Your task to perform on an android device: Add usb-a to usb-b to the cart on costco.com, then select checkout. Image 0: 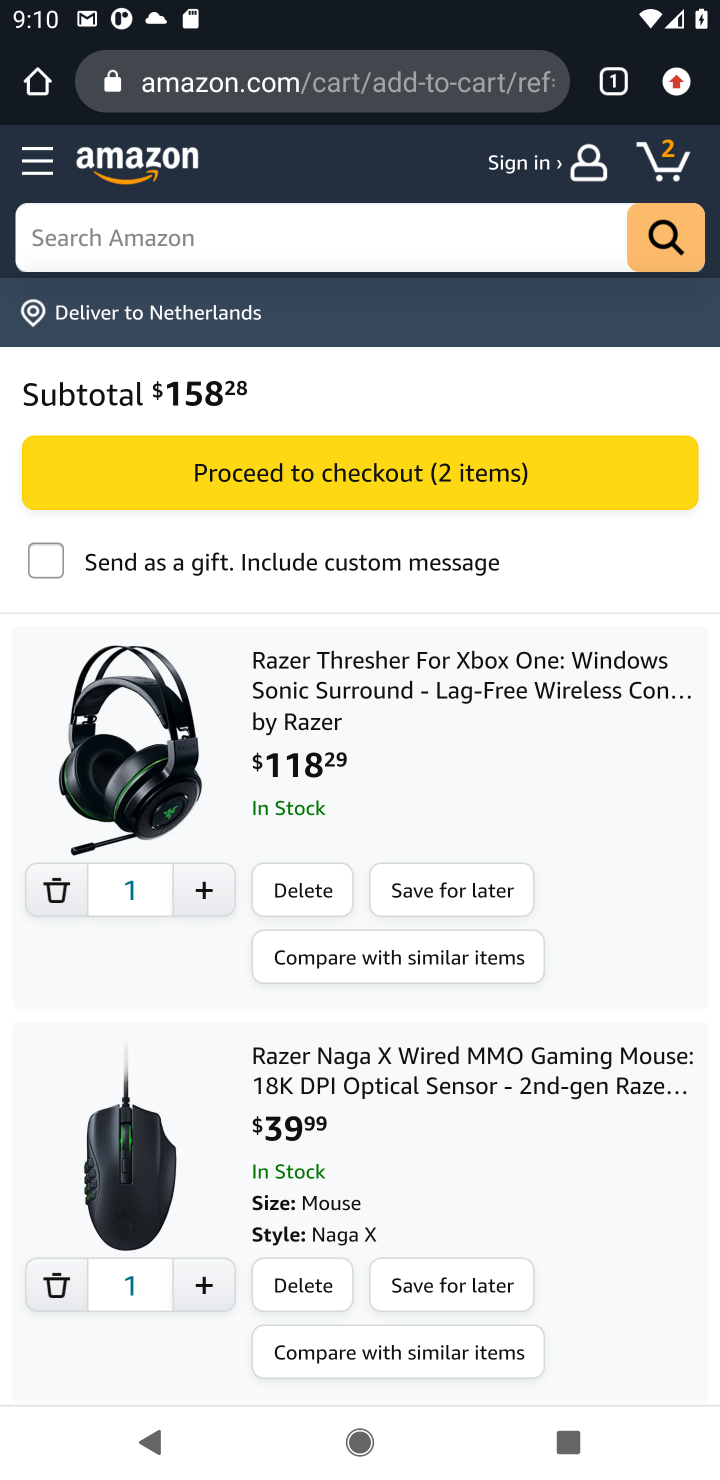
Step 0: click (364, 60)
Your task to perform on an android device: Add usb-a to usb-b to the cart on costco.com, then select checkout. Image 1: 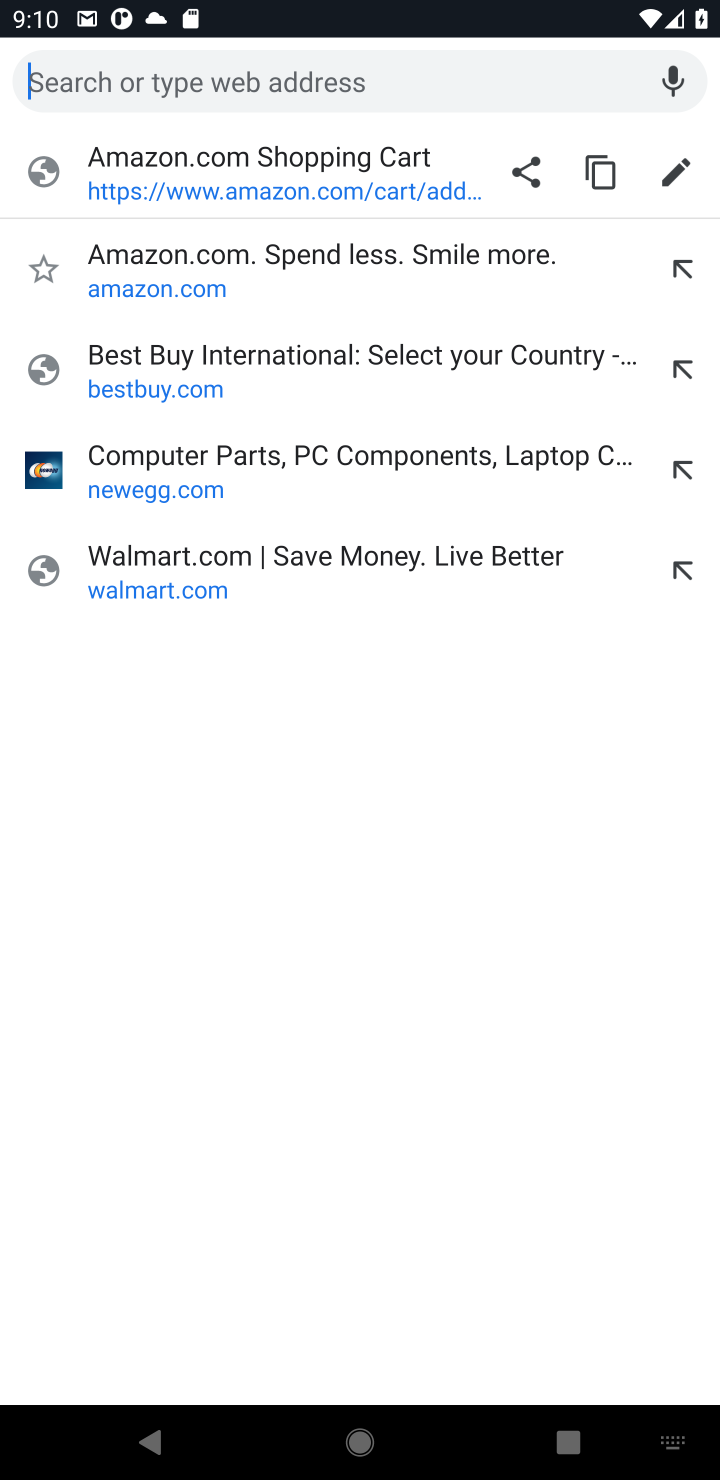
Step 1: type "costco"
Your task to perform on an android device: Add usb-a to usb-b to the cart on costco.com, then select checkout. Image 2: 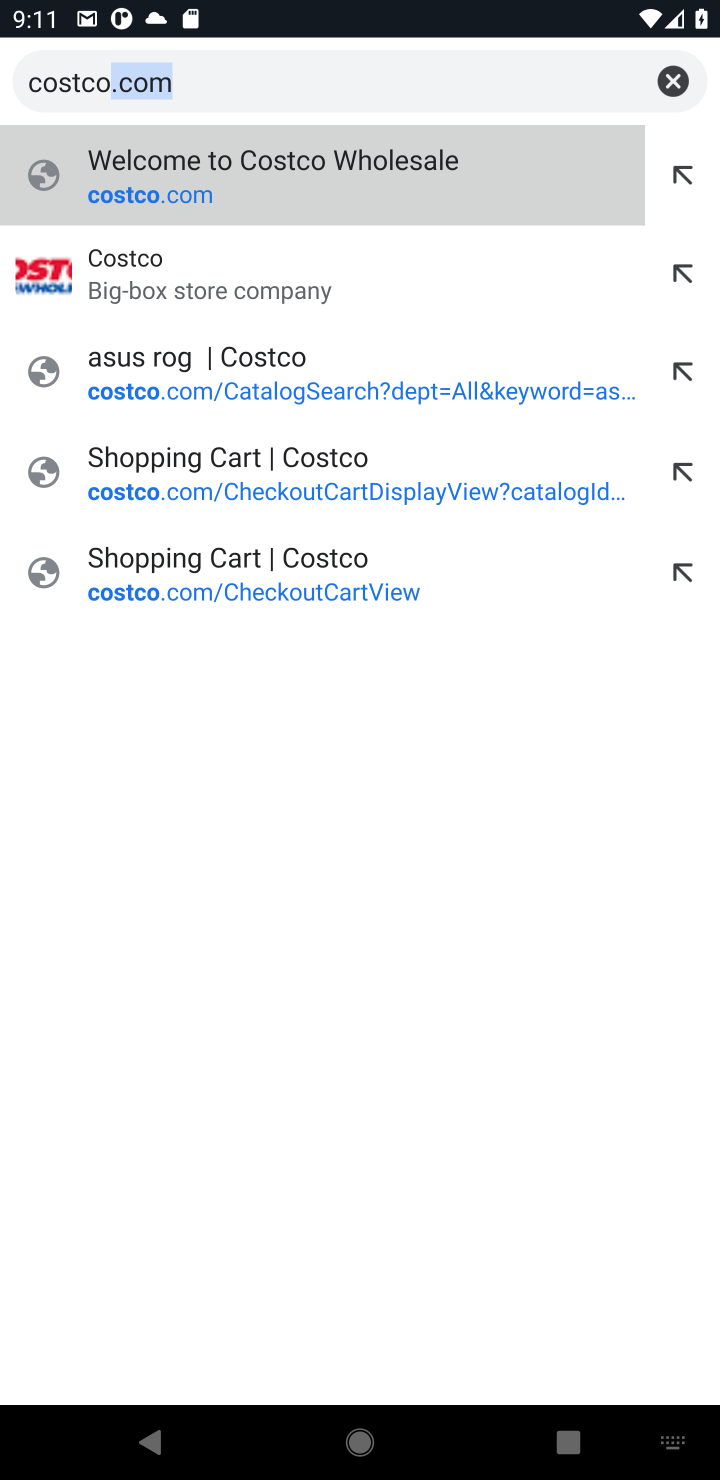
Step 2: click (119, 271)
Your task to perform on an android device: Add usb-a to usb-b to the cart on costco.com, then select checkout. Image 3: 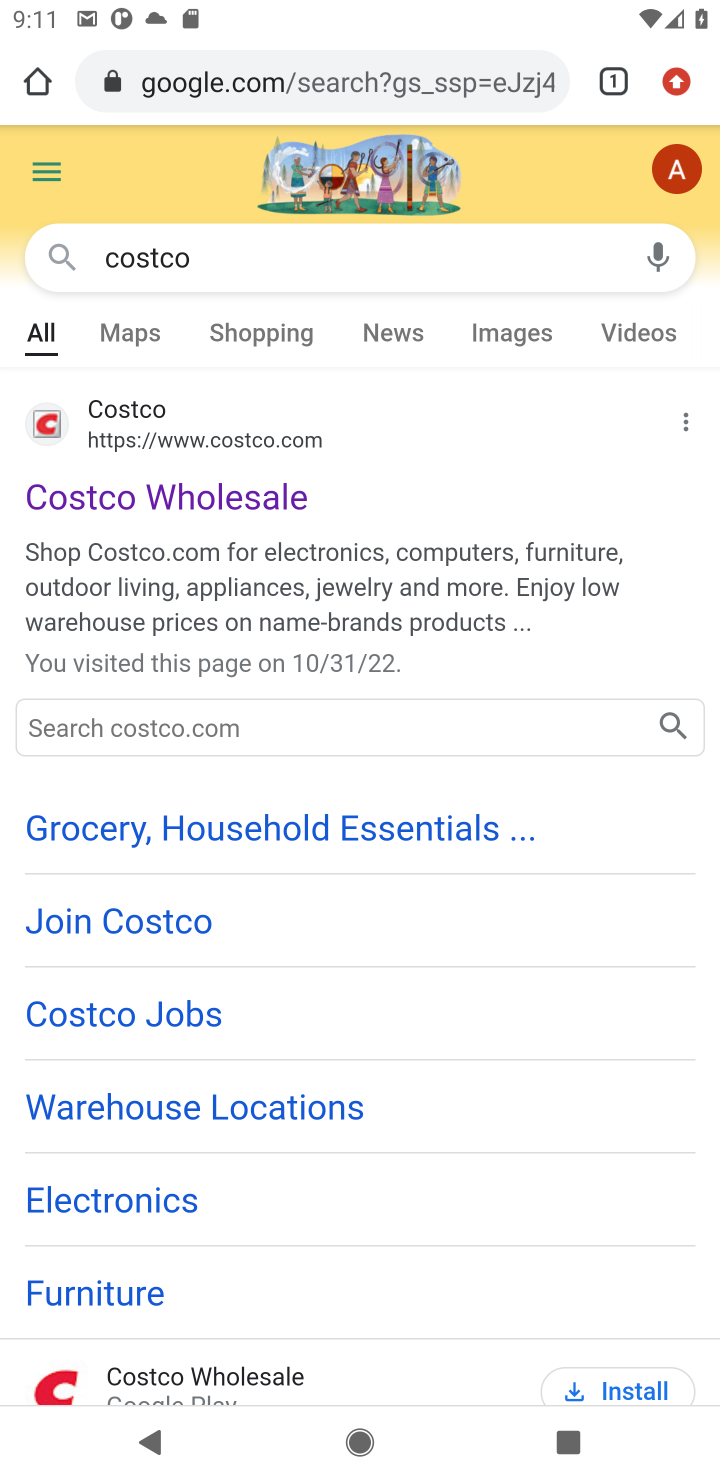
Step 3: click (255, 514)
Your task to perform on an android device: Add usb-a to usb-b to the cart on costco.com, then select checkout. Image 4: 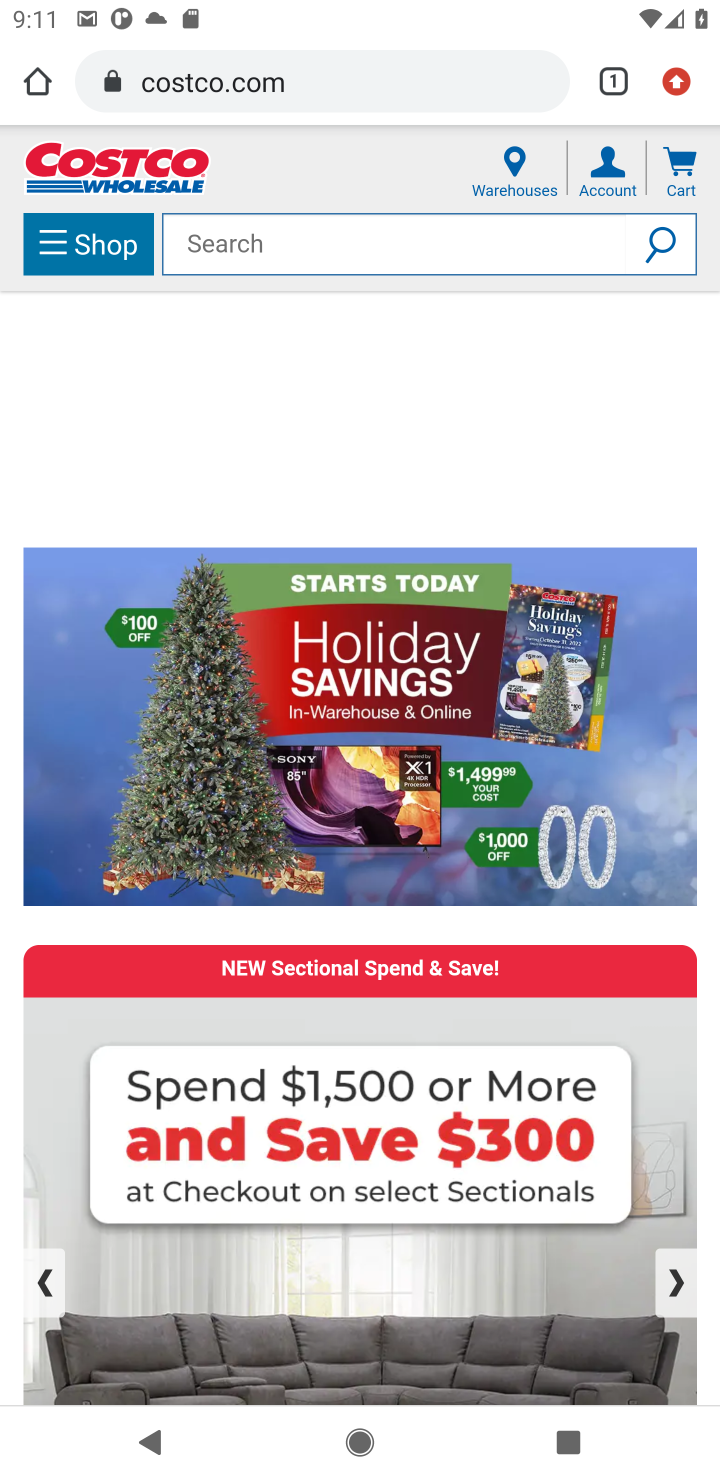
Step 4: click (418, 254)
Your task to perform on an android device: Add usb-a to usb-b to the cart on costco.com, then select checkout. Image 5: 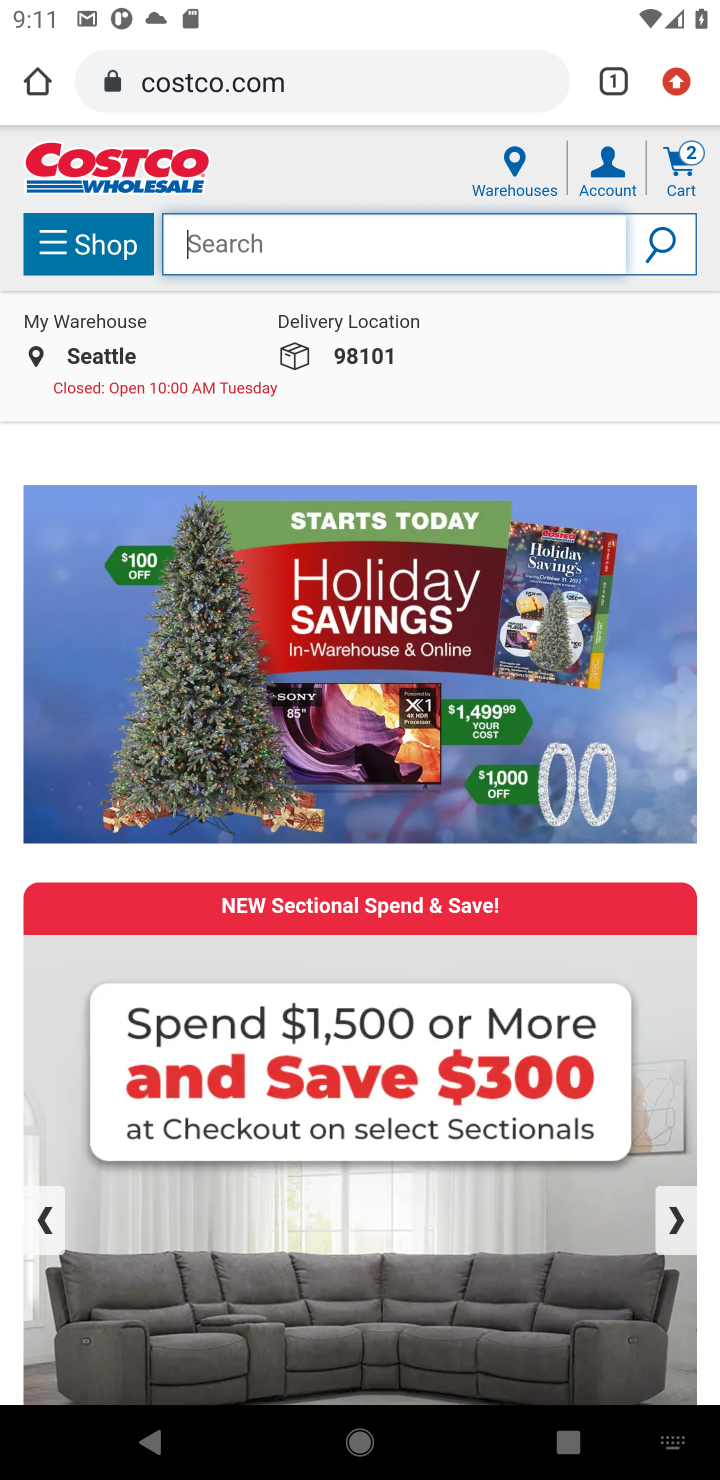
Step 5: type "usb-a to usb-b "
Your task to perform on an android device: Add usb-a to usb-b to the cart on costco.com, then select checkout. Image 6: 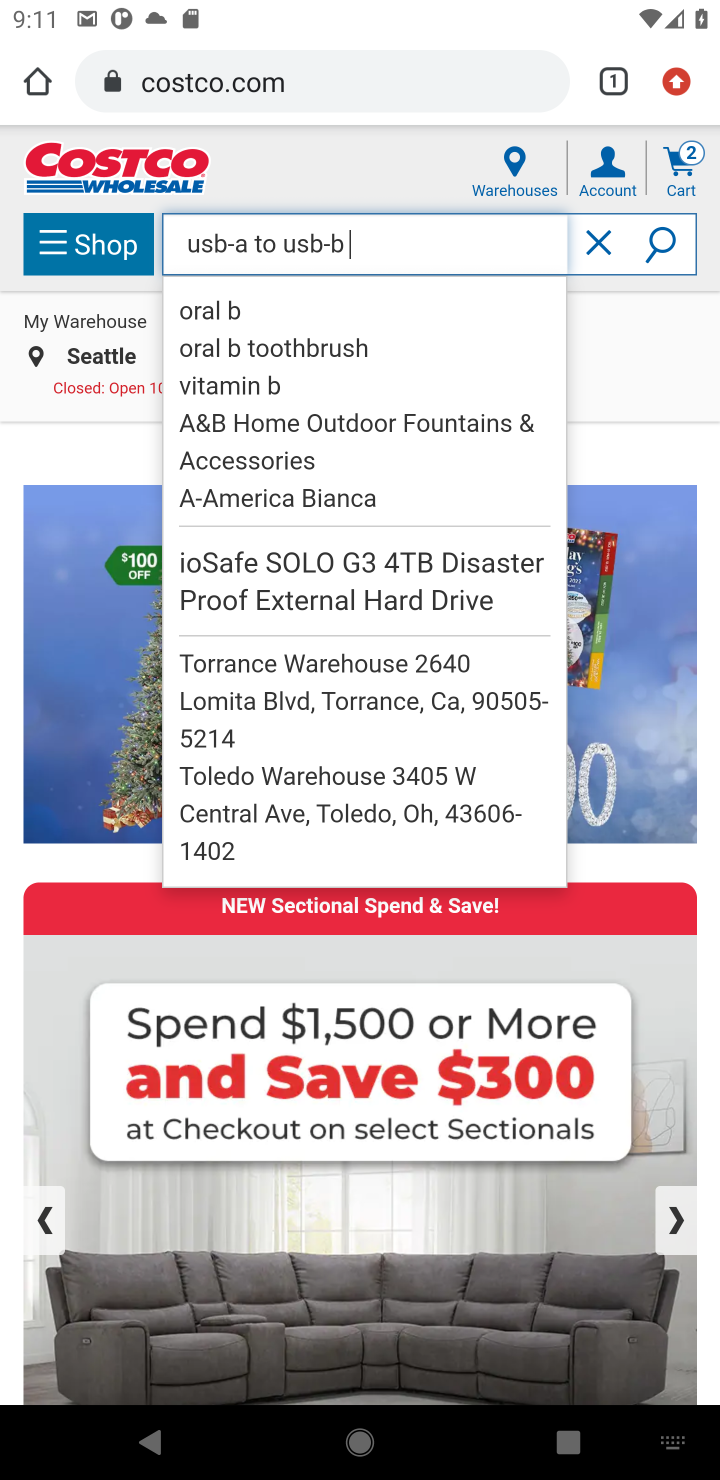
Step 6: click (649, 253)
Your task to perform on an android device: Add usb-a to usb-b to the cart on costco.com, then select checkout. Image 7: 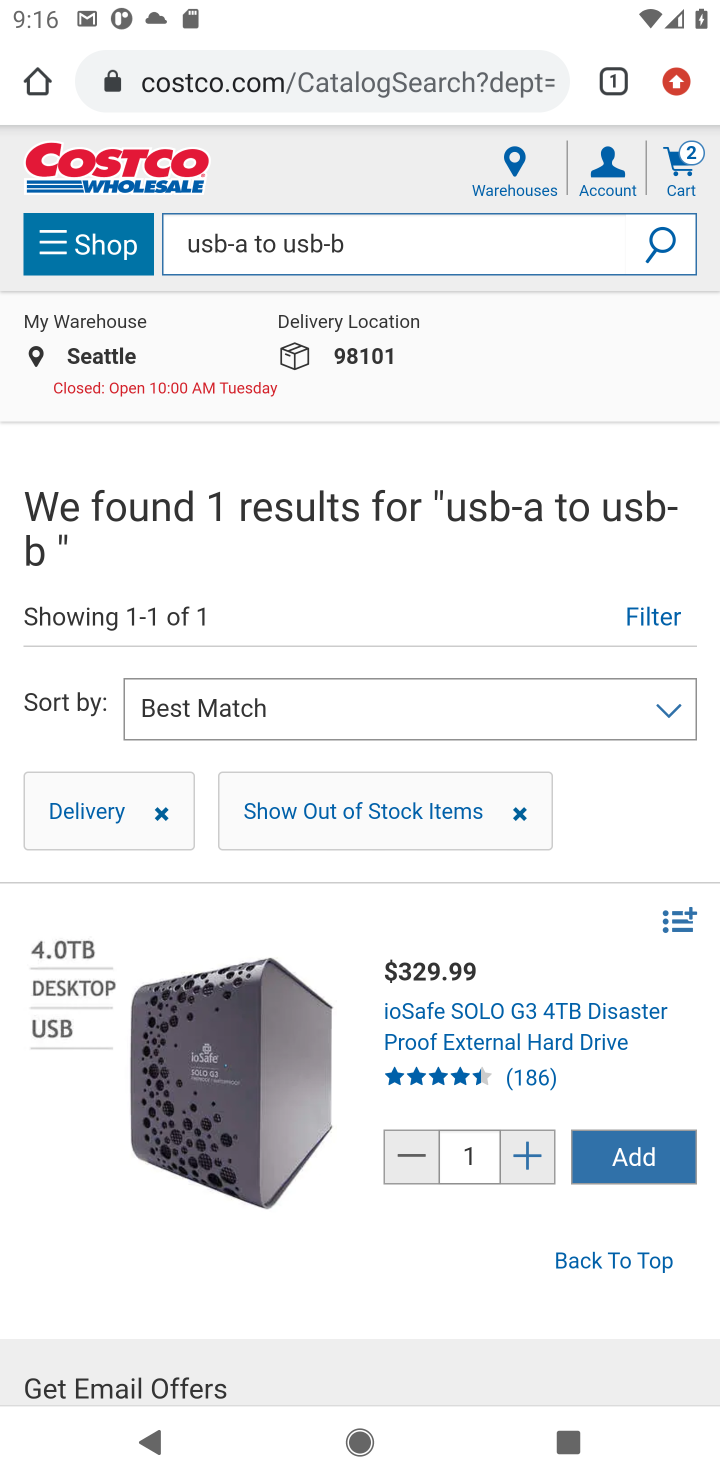
Step 7: task complete